Your task to perform on an android device: uninstall "McDonald's" Image 0: 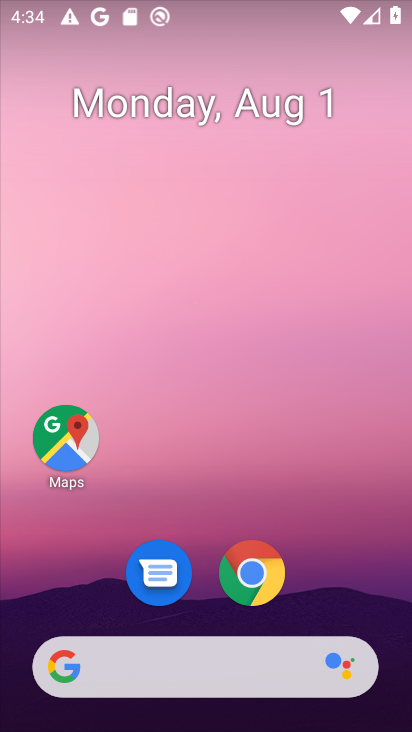
Step 0: drag from (219, 547) to (145, 77)
Your task to perform on an android device: uninstall "McDonald's" Image 1: 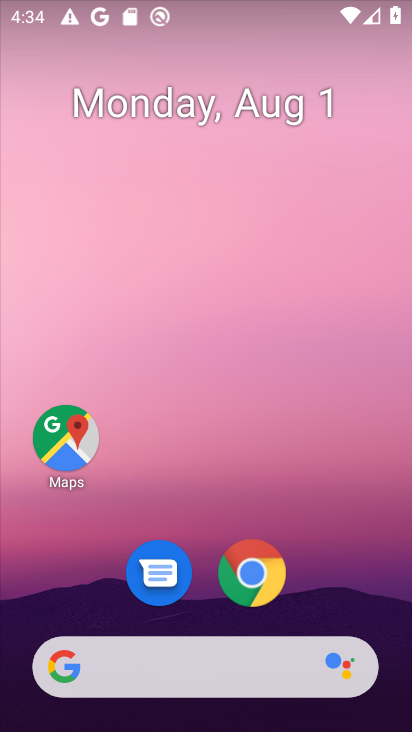
Step 1: drag from (176, 515) to (143, 130)
Your task to perform on an android device: uninstall "McDonald's" Image 2: 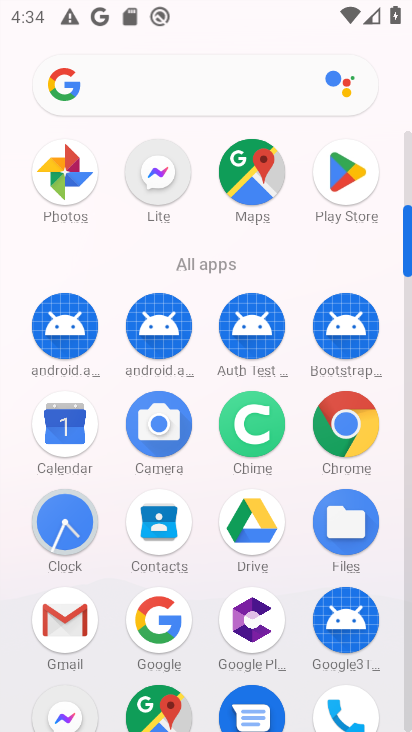
Step 2: drag from (218, 419) to (218, 177)
Your task to perform on an android device: uninstall "McDonald's" Image 3: 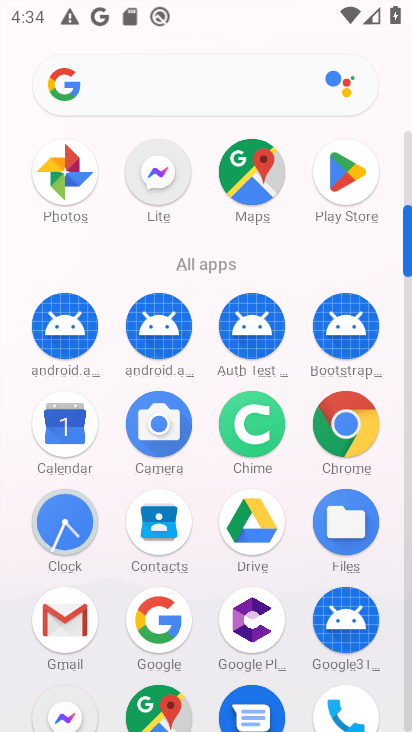
Step 3: click (340, 167)
Your task to perform on an android device: uninstall "McDonald's" Image 4: 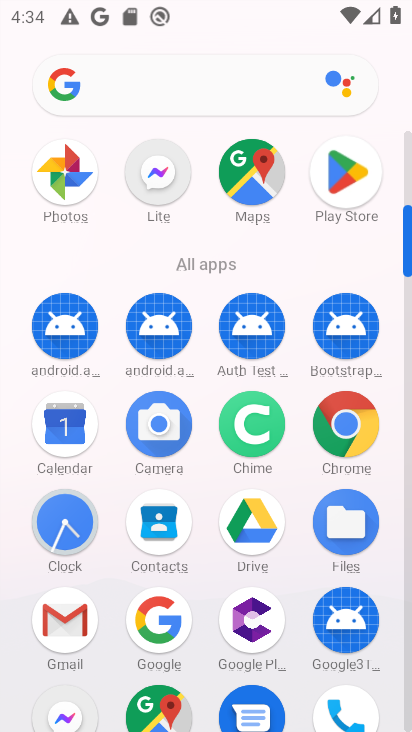
Step 4: click (340, 167)
Your task to perform on an android device: uninstall "McDonald's" Image 5: 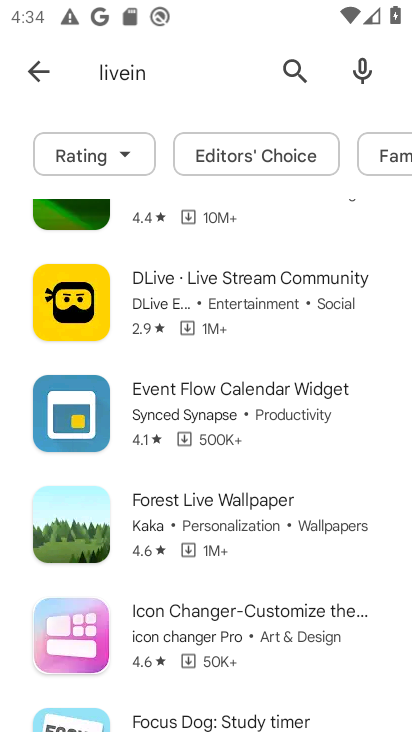
Step 5: click (65, 64)
Your task to perform on an android device: uninstall "McDonald's" Image 6: 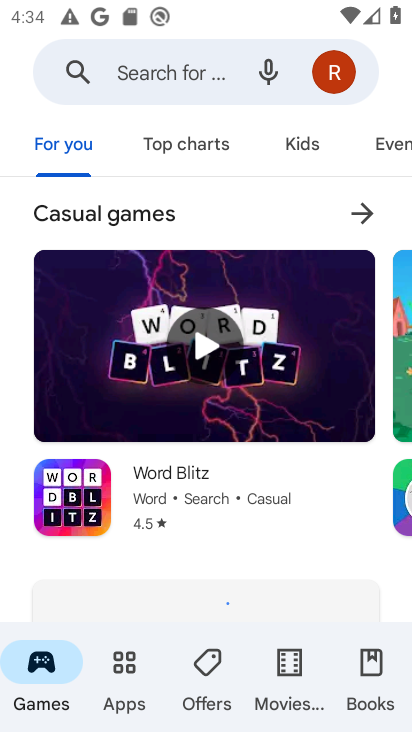
Step 6: click (36, 70)
Your task to perform on an android device: uninstall "McDonald's" Image 7: 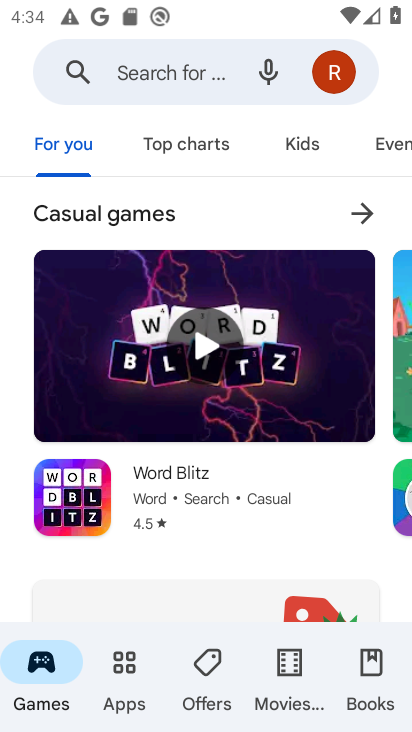
Step 7: click (142, 68)
Your task to perform on an android device: uninstall "McDonald's" Image 8: 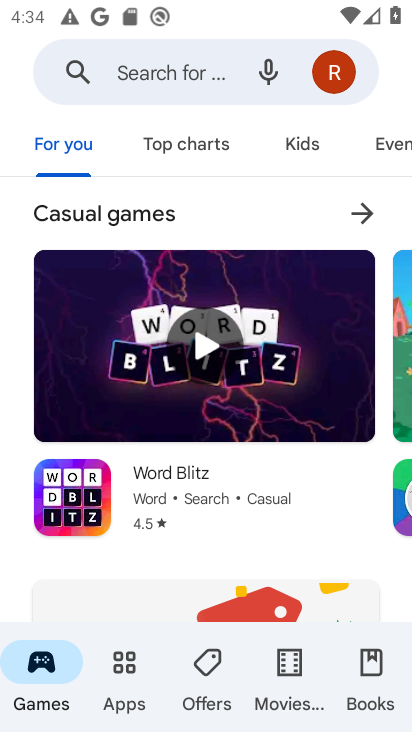
Step 8: click (141, 70)
Your task to perform on an android device: uninstall "McDonald's" Image 9: 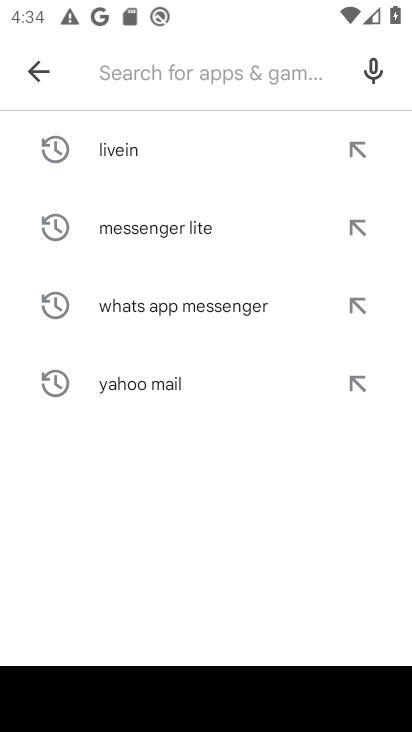
Step 9: type "mcdonalds"
Your task to perform on an android device: uninstall "McDonald's" Image 10: 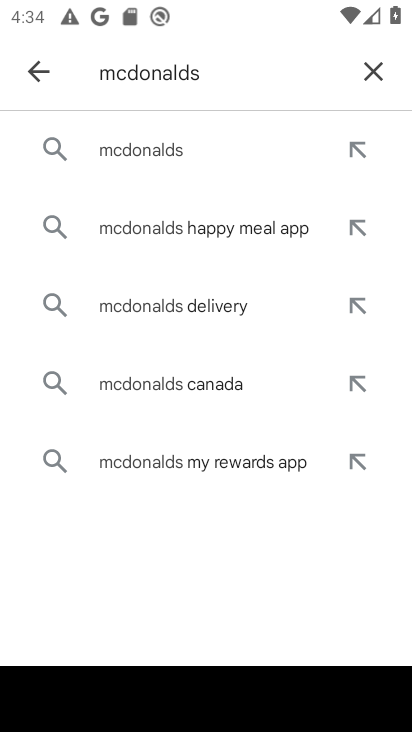
Step 10: click (350, 150)
Your task to perform on an android device: uninstall "McDonald's" Image 11: 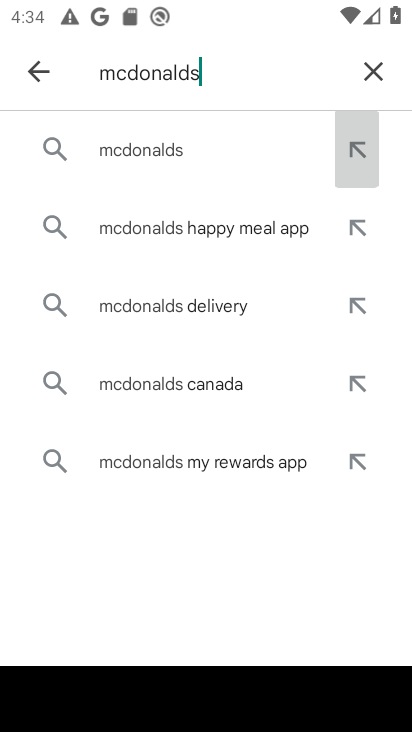
Step 11: click (350, 150)
Your task to perform on an android device: uninstall "McDonald's" Image 12: 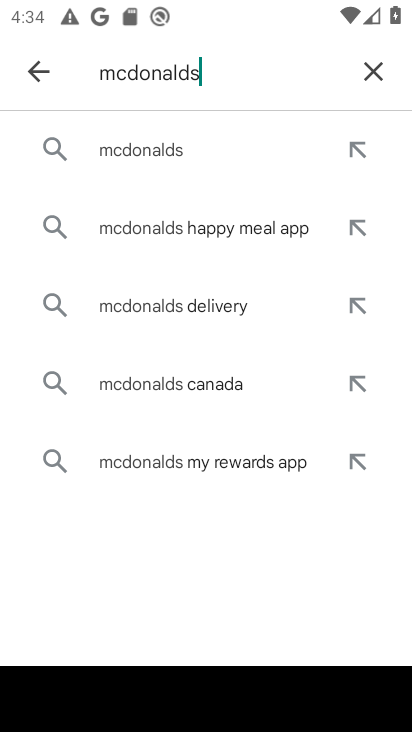
Step 12: click (155, 145)
Your task to perform on an android device: uninstall "McDonald's" Image 13: 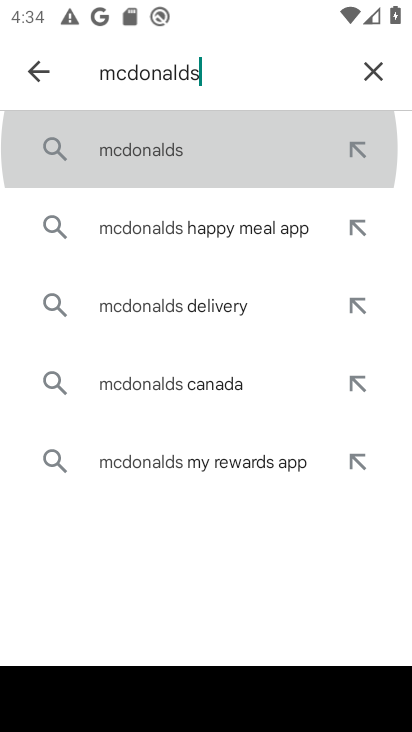
Step 13: click (155, 144)
Your task to perform on an android device: uninstall "McDonald's" Image 14: 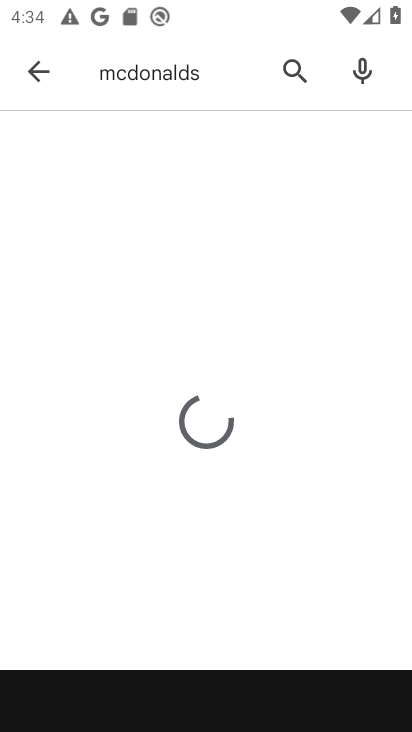
Step 14: click (154, 143)
Your task to perform on an android device: uninstall "McDonald's" Image 15: 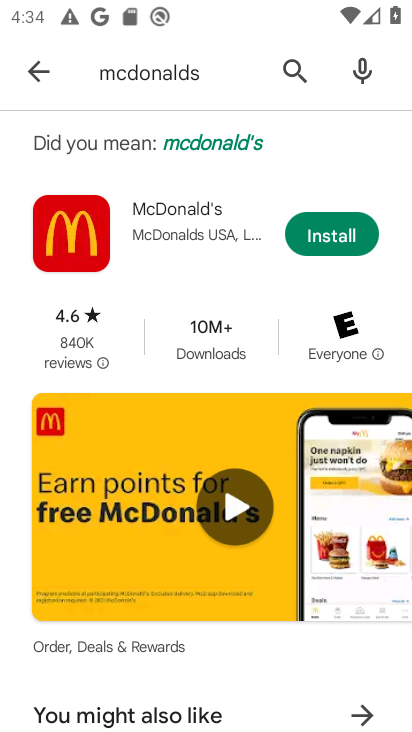
Step 15: click (350, 217)
Your task to perform on an android device: uninstall "McDonald's" Image 16: 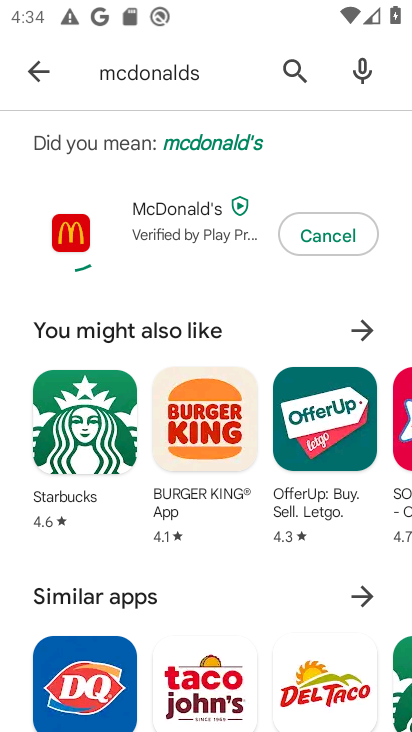
Step 16: click (350, 233)
Your task to perform on an android device: uninstall "McDonald's" Image 17: 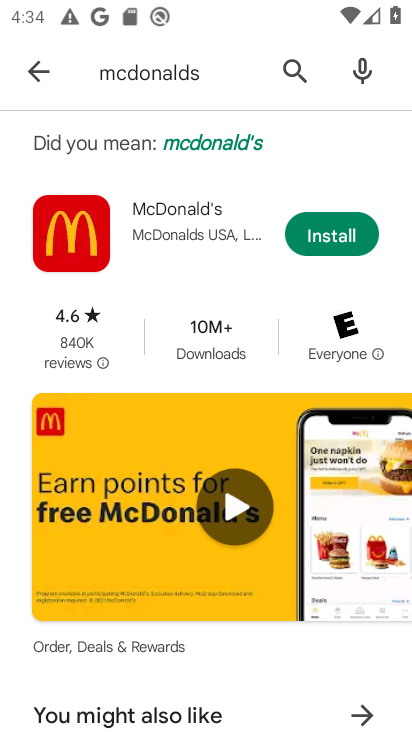
Step 17: task complete